Your task to perform on an android device: Open calendar and show me the fourth week of next month Image 0: 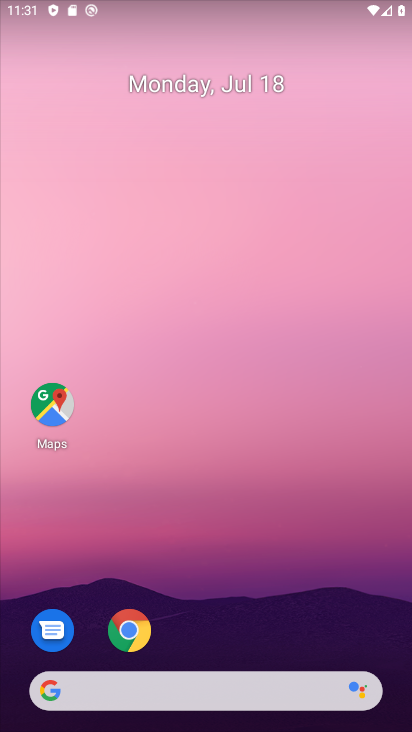
Step 0: drag from (198, 636) to (168, 19)
Your task to perform on an android device: Open calendar and show me the fourth week of next month Image 1: 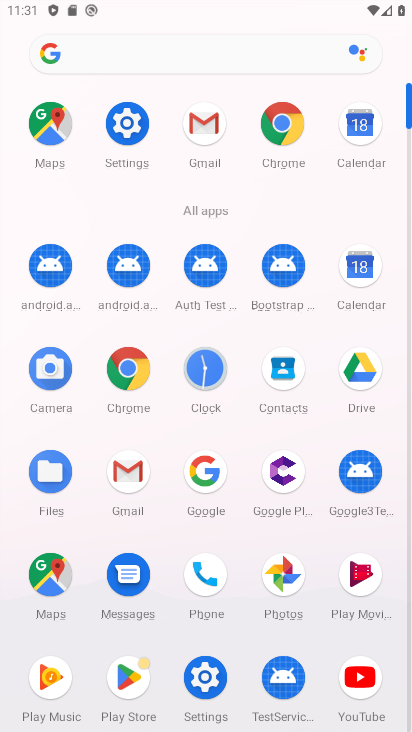
Step 1: click (357, 277)
Your task to perform on an android device: Open calendar and show me the fourth week of next month Image 2: 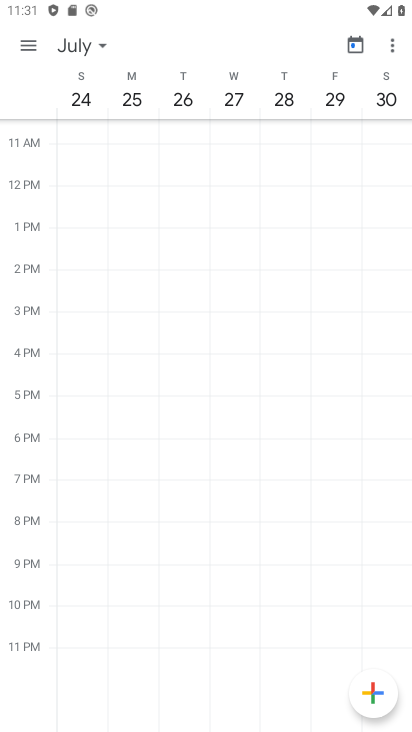
Step 2: task complete